Your task to perform on an android device: open app "Messages" (install if not already installed) Image 0: 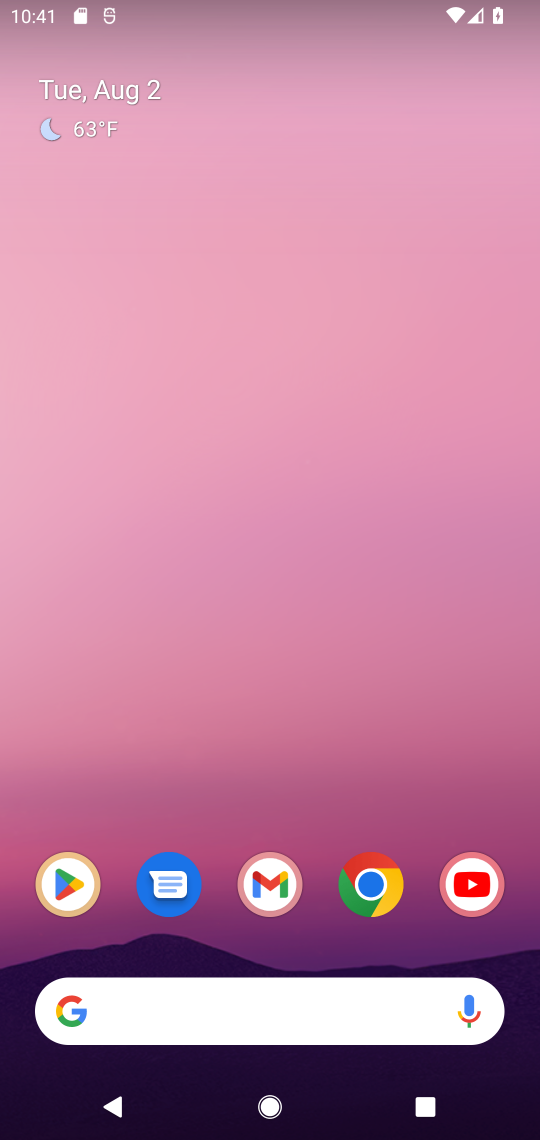
Step 0: click (61, 874)
Your task to perform on an android device: open app "Messages" (install if not already installed) Image 1: 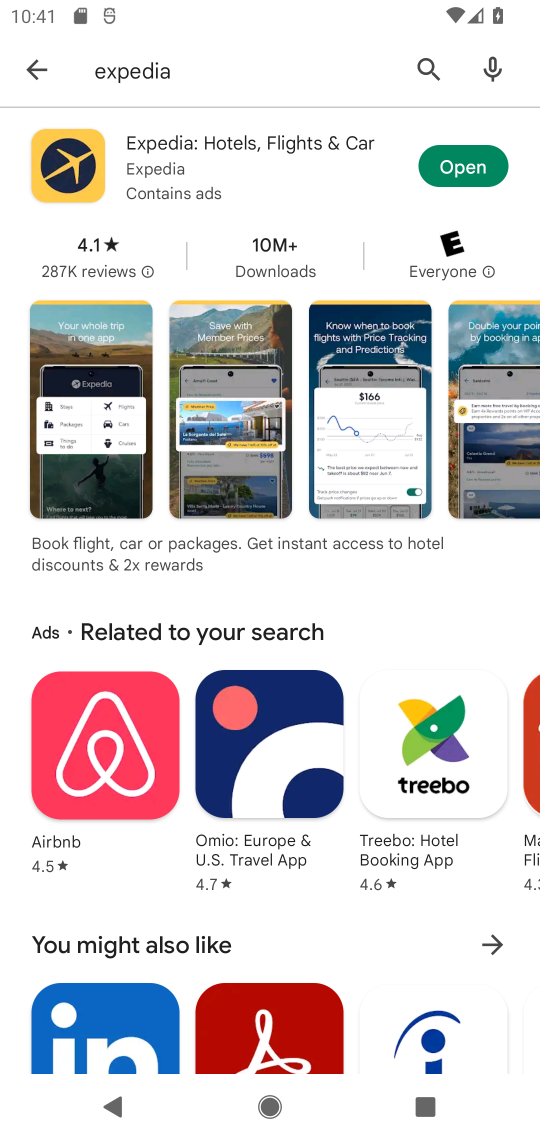
Step 1: click (178, 69)
Your task to perform on an android device: open app "Messages" (install if not already installed) Image 2: 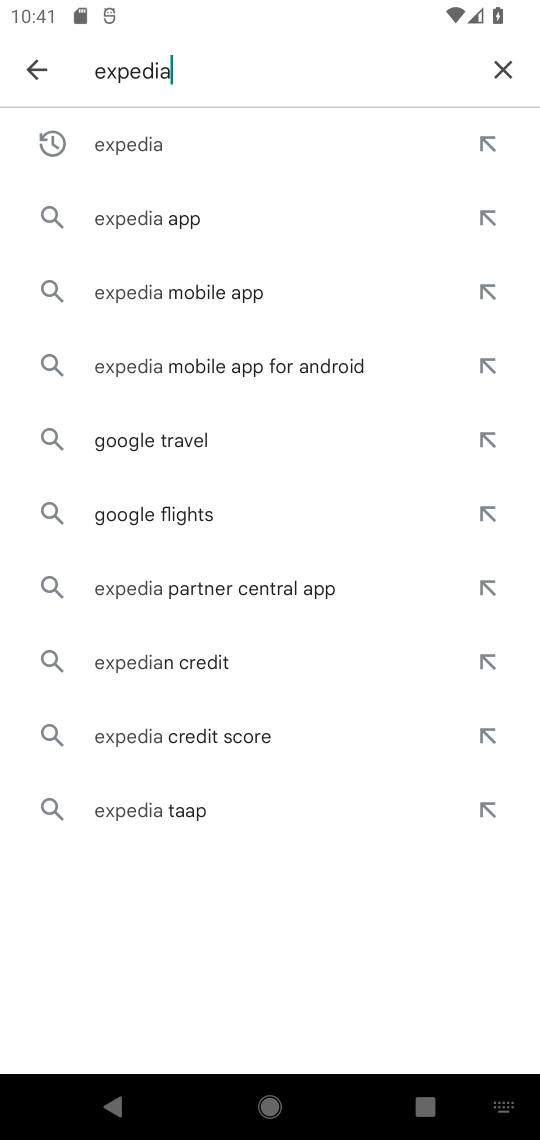
Step 2: click (493, 67)
Your task to perform on an android device: open app "Messages" (install if not already installed) Image 3: 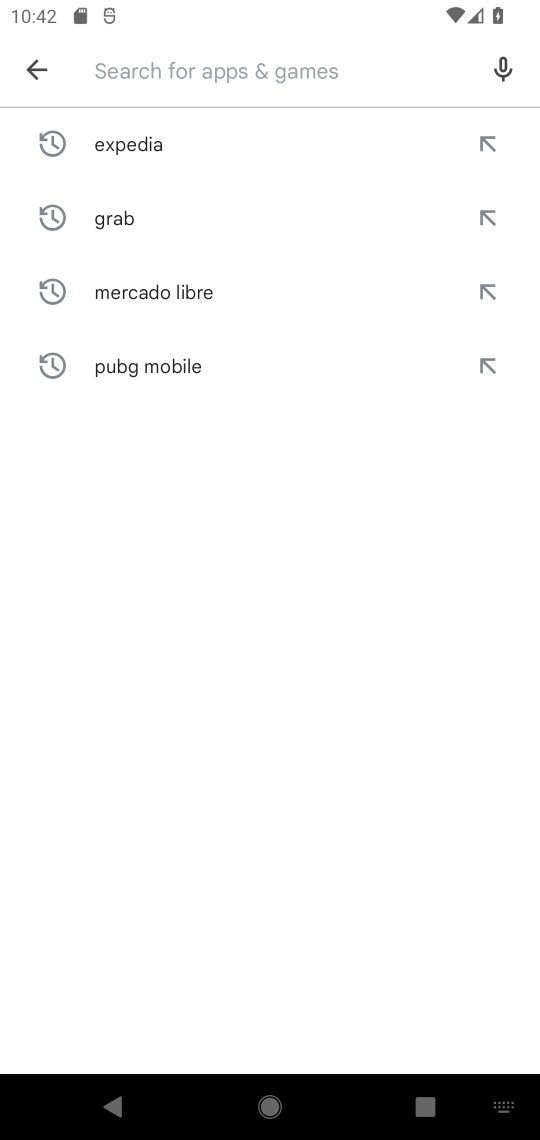
Step 3: type "messages"
Your task to perform on an android device: open app "Messages" (install if not already installed) Image 4: 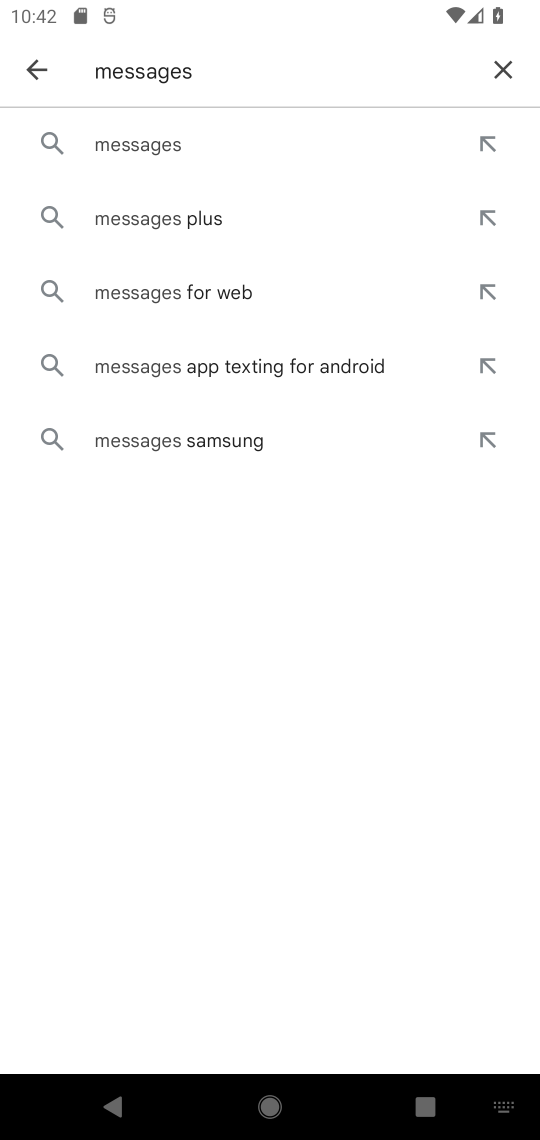
Step 4: click (138, 153)
Your task to perform on an android device: open app "Messages" (install if not already installed) Image 5: 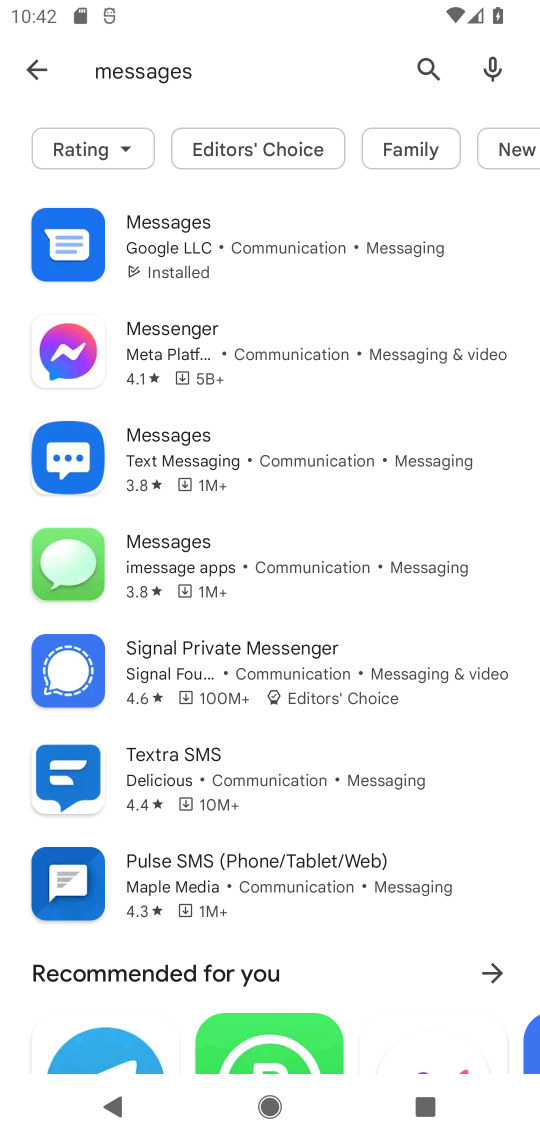
Step 5: click (179, 261)
Your task to perform on an android device: open app "Messages" (install if not already installed) Image 6: 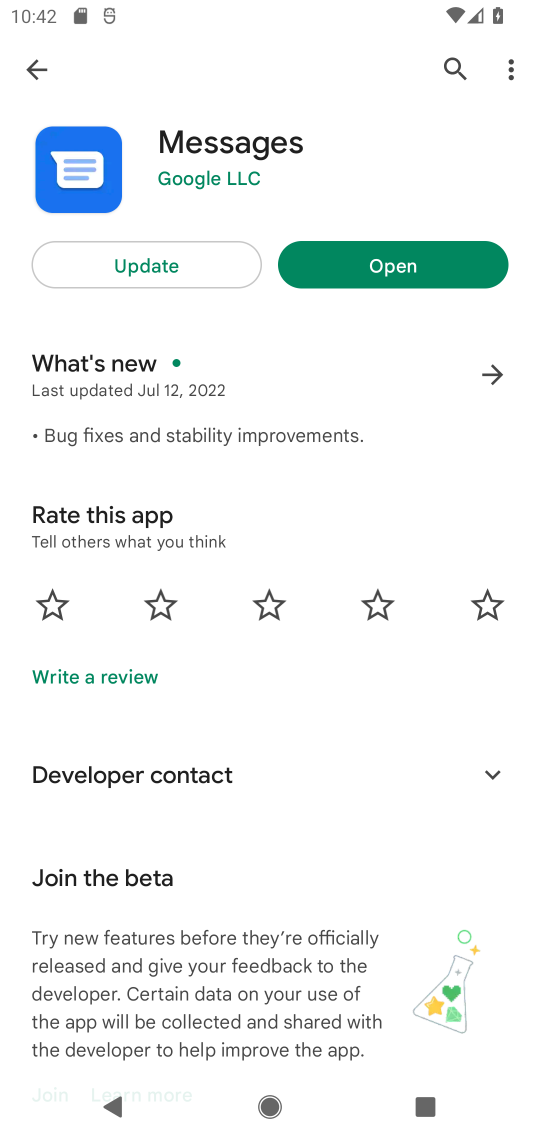
Step 6: click (366, 280)
Your task to perform on an android device: open app "Messages" (install if not already installed) Image 7: 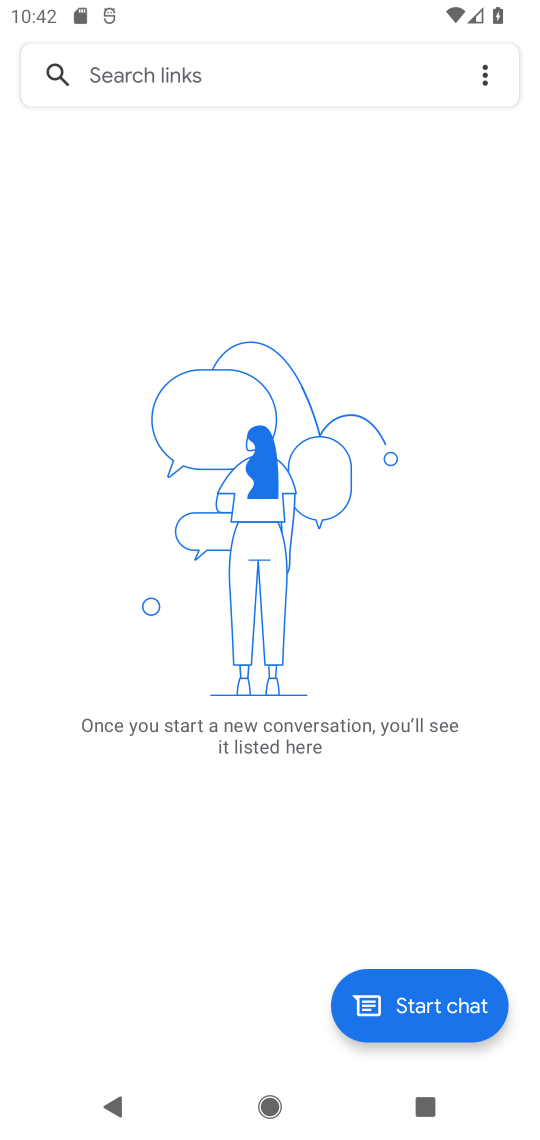
Step 7: task complete